Your task to perform on an android device: turn smart compose on in the gmail app Image 0: 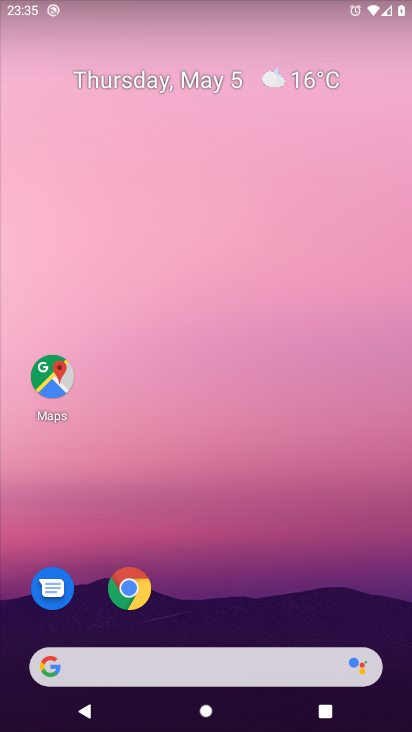
Step 0: drag from (208, 608) to (193, 110)
Your task to perform on an android device: turn smart compose on in the gmail app Image 1: 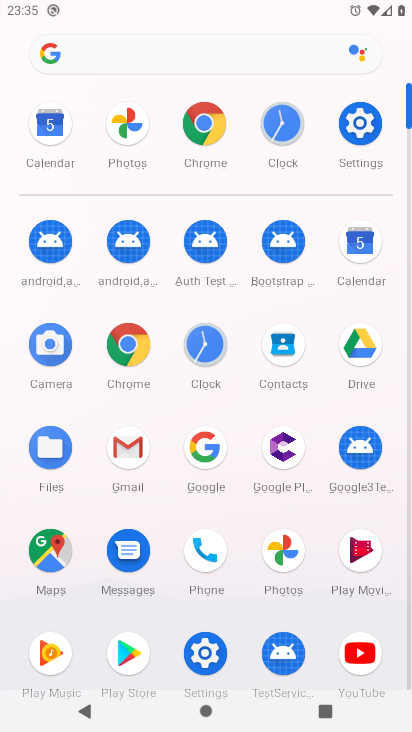
Step 1: click (137, 467)
Your task to perform on an android device: turn smart compose on in the gmail app Image 2: 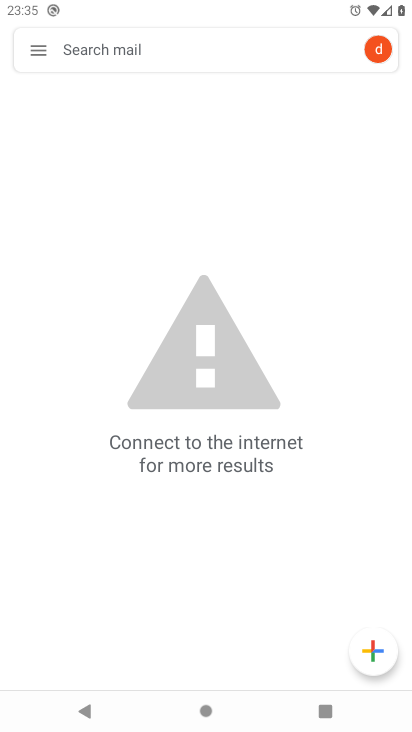
Step 2: click (35, 62)
Your task to perform on an android device: turn smart compose on in the gmail app Image 3: 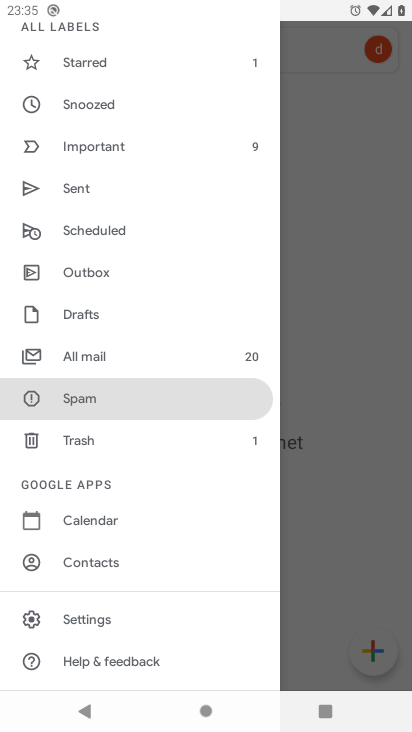
Step 3: click (177, 623)
Your task to perform on an android device: turn smart compose on in the gmail app Image 4: 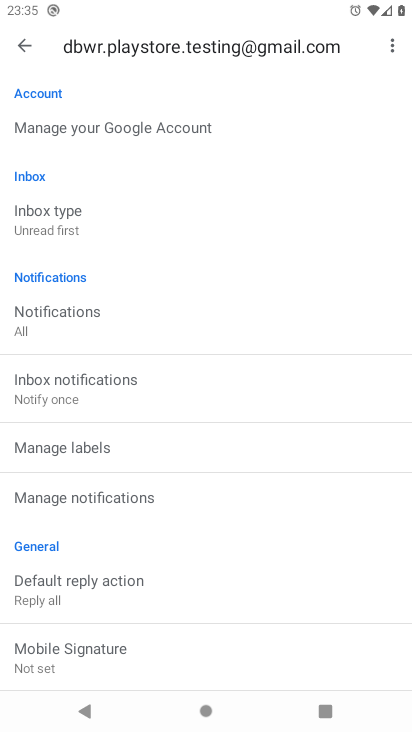
Step 4: task complete